Your task to perform on an android device: Search for pizza restaurants on Maps Image 0: 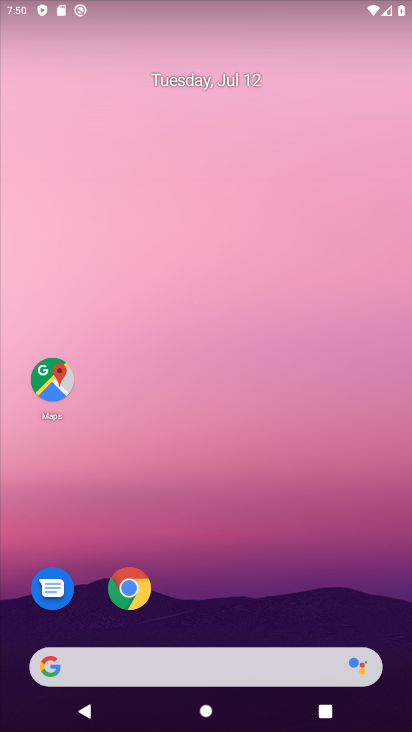
Step 0: click (314, 350)
Your task to perform on an android device: Search for pizza restaurants on Maps Image 1: 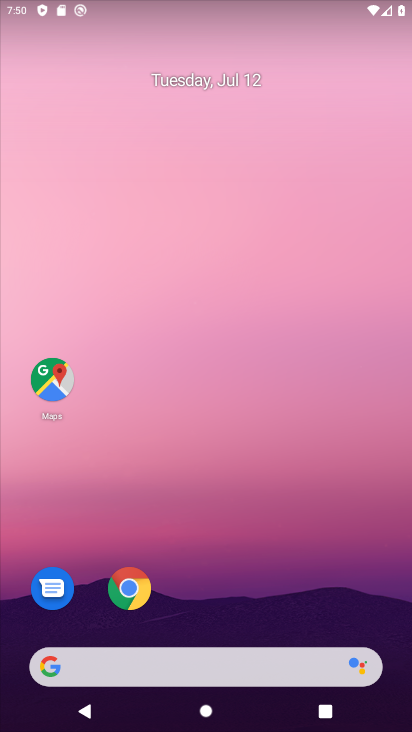
Step 1: click (41, 384)
Your task to perform on an android device: Search for pizza restaurants on Maps Image 2: 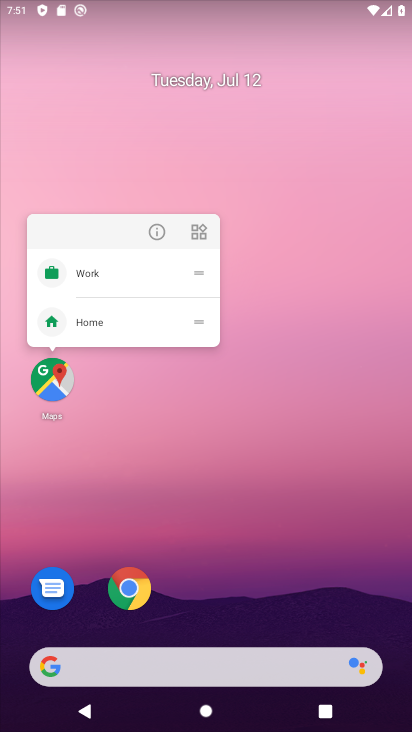
Step 2: click (69, 379)
Your task to perform on an android device: Search for pizza restaurants on Maps Image 3: 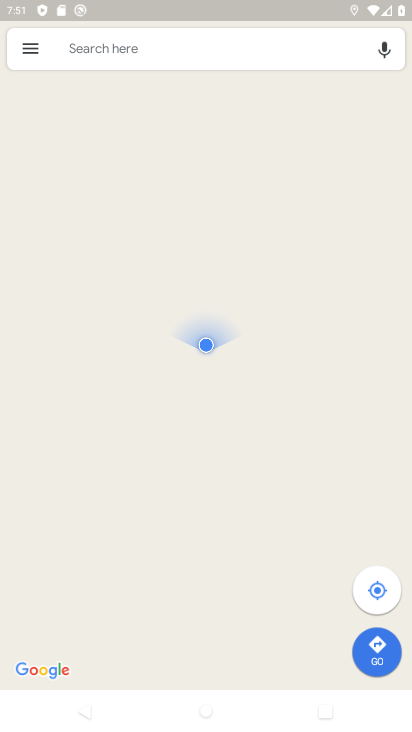
Step 3: click (140, 55)
Your task to perform on an android device: Search for pizza restaurants on Maps Image 4: 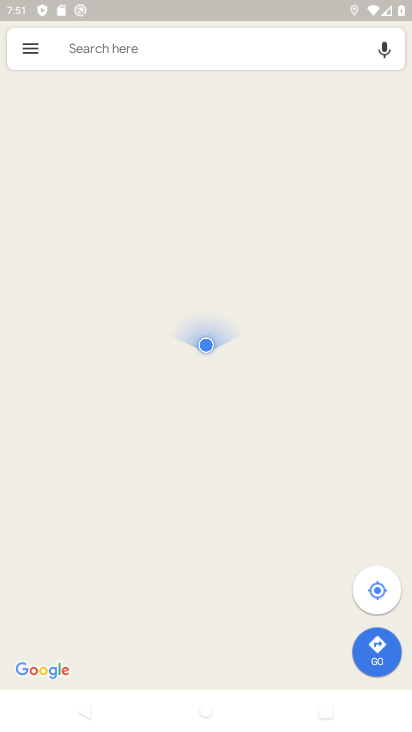
Step 4: click (140, 55)
Your task to perform on an android device: Search for pizza restaurants on Maps Image 5: 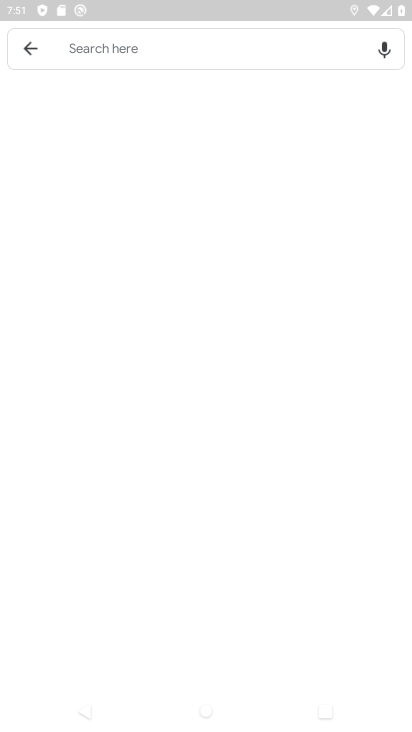
Step 5: click (140, 55)
Your task to perform on an android device: Search for pizza restaurants on Maps Image 6: 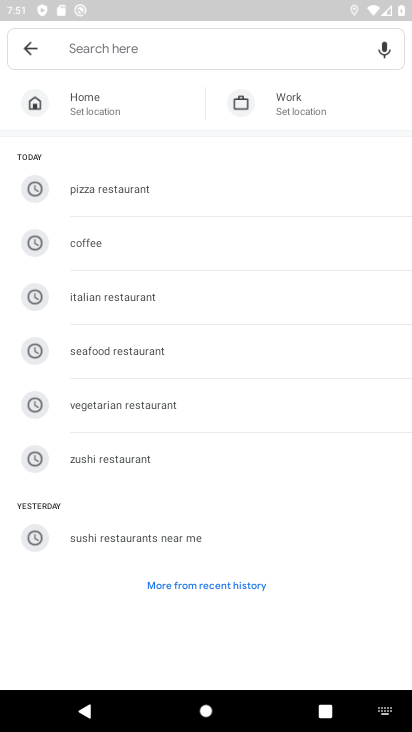
Step 6: type "pizza restaurannts"
Your task to perform on an android device: Search for pizza restaurants on Maps Image 7: 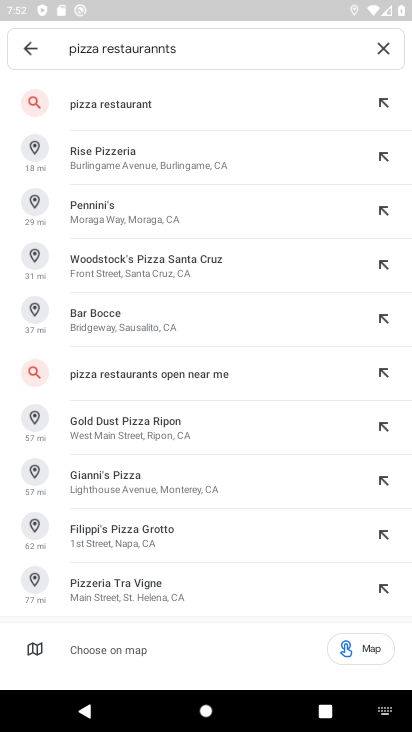
Step 7: click (209, 85)
Your task to perform on an android device: Search for pizza restaurants on Maps Image 8: 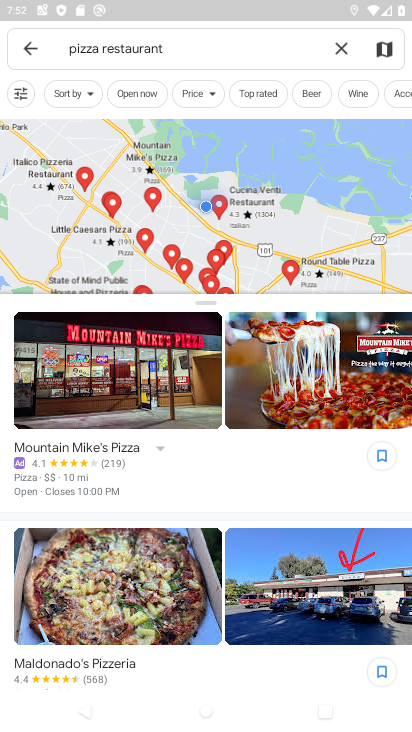
Step 8: task complete